Your task to perform on an android device: turn on location history Image 0: 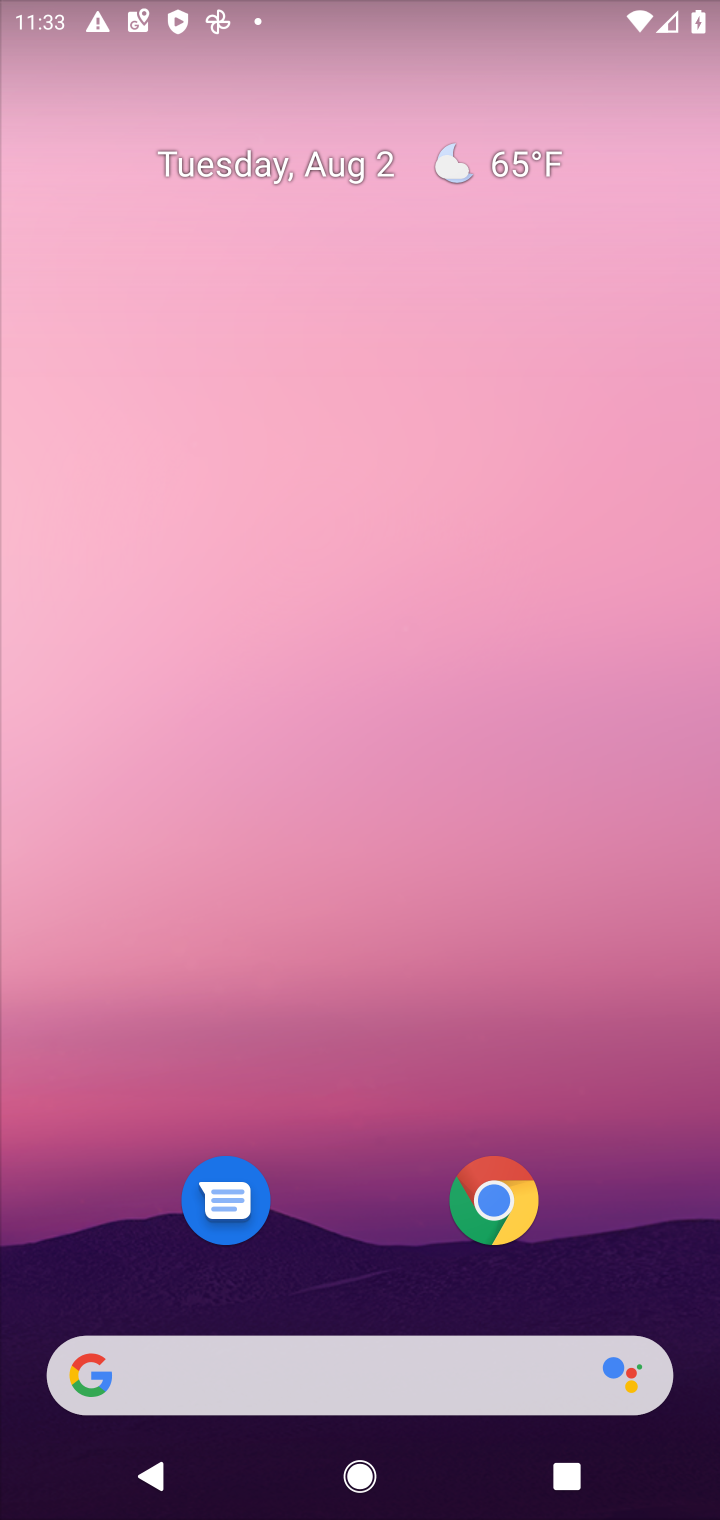
Step 0: drag from (606, 726) to (624, 233)
Your task to perform on an android device: turn on location history Image 1: 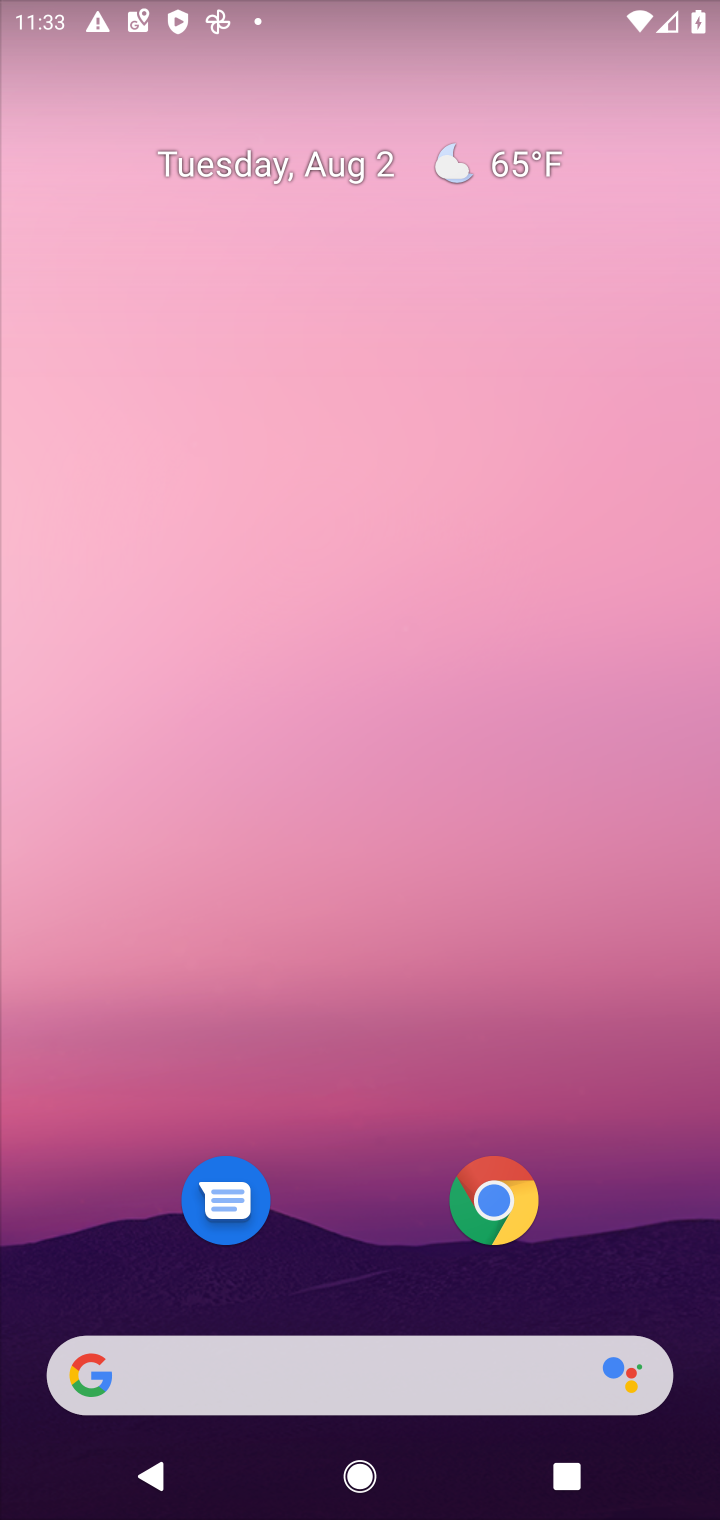
Step 1: drag from (663, 1211) to (612, 222)
Your task to perform on an android device: turn on location history Image 2: 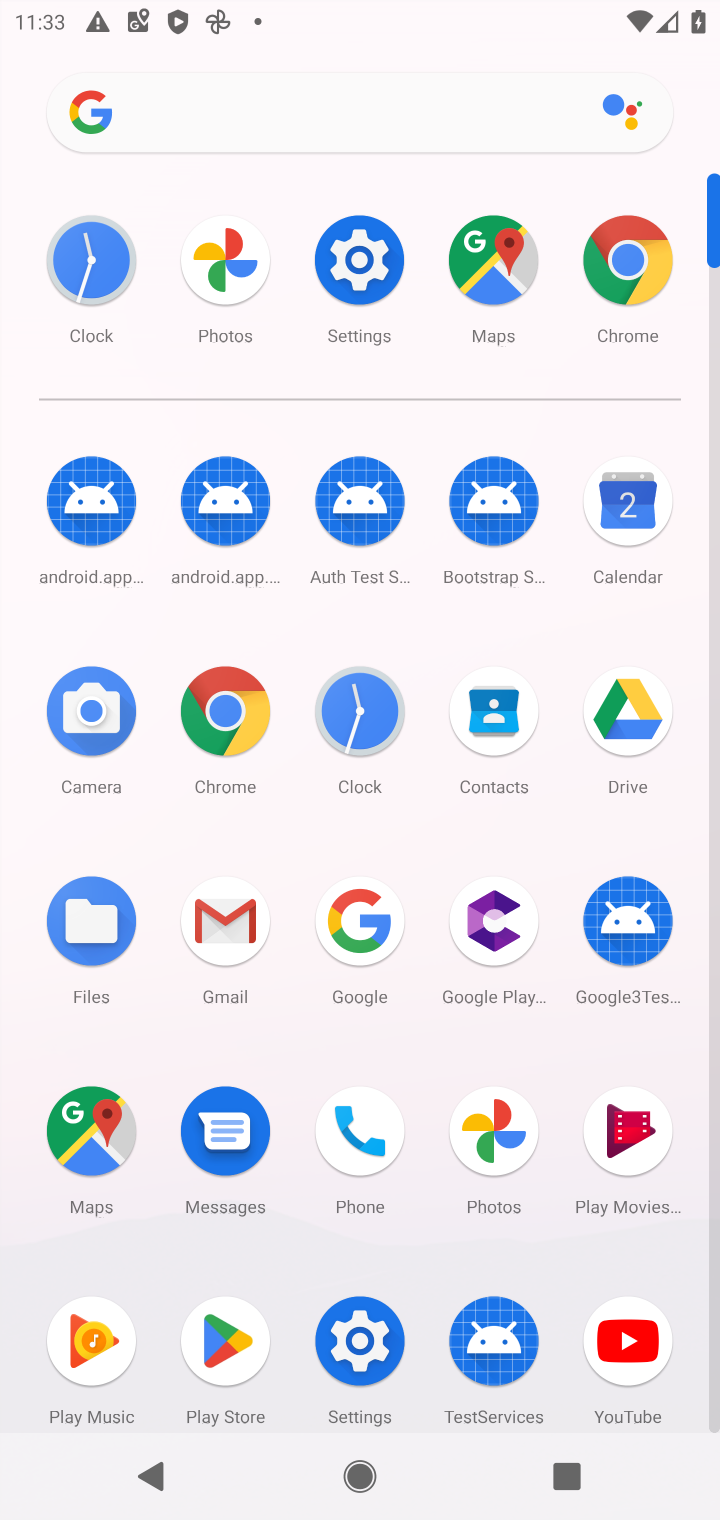
Step 2: click (96, 1136)
Your task to perform on an android device: turn on location history Image 3: 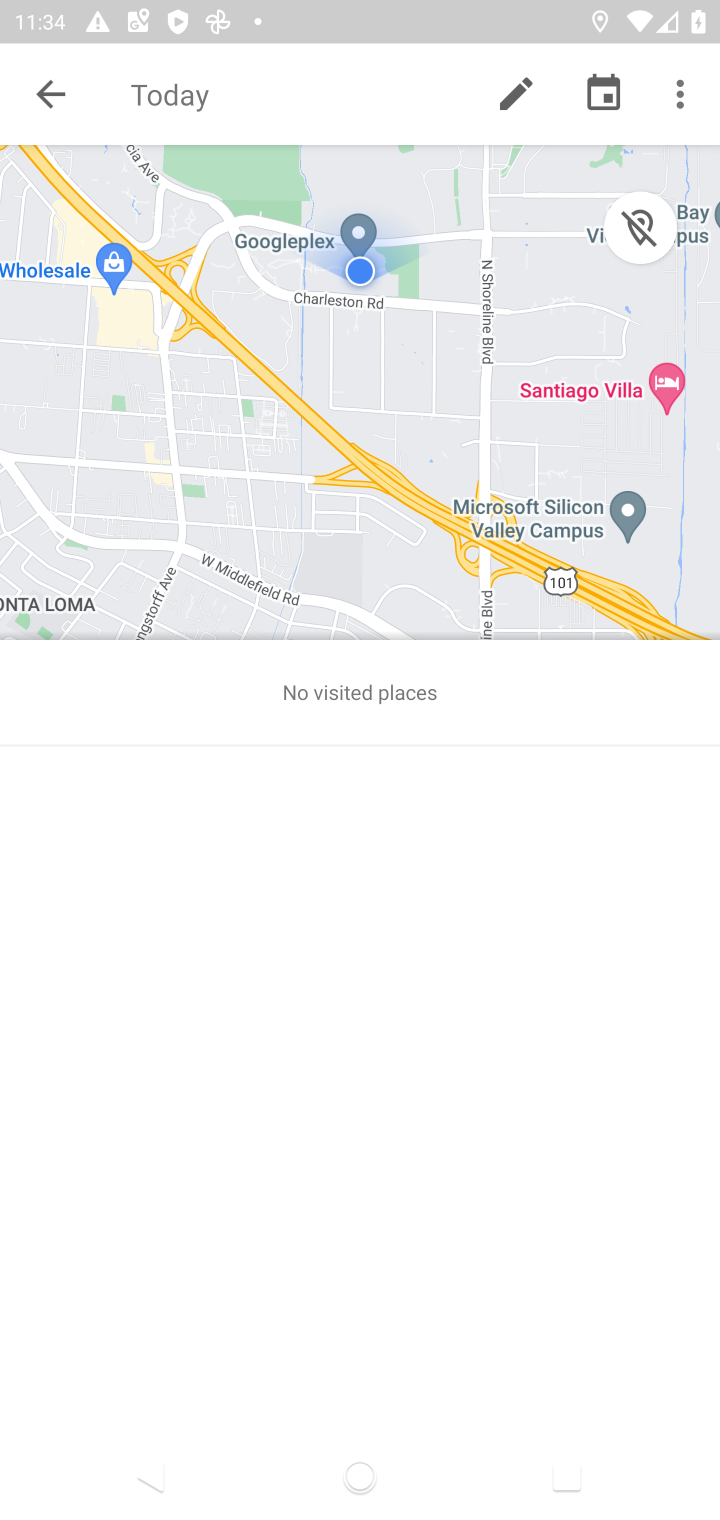
Step 3: press back button
Your task to perform on an android device: turn on location history Image 4: 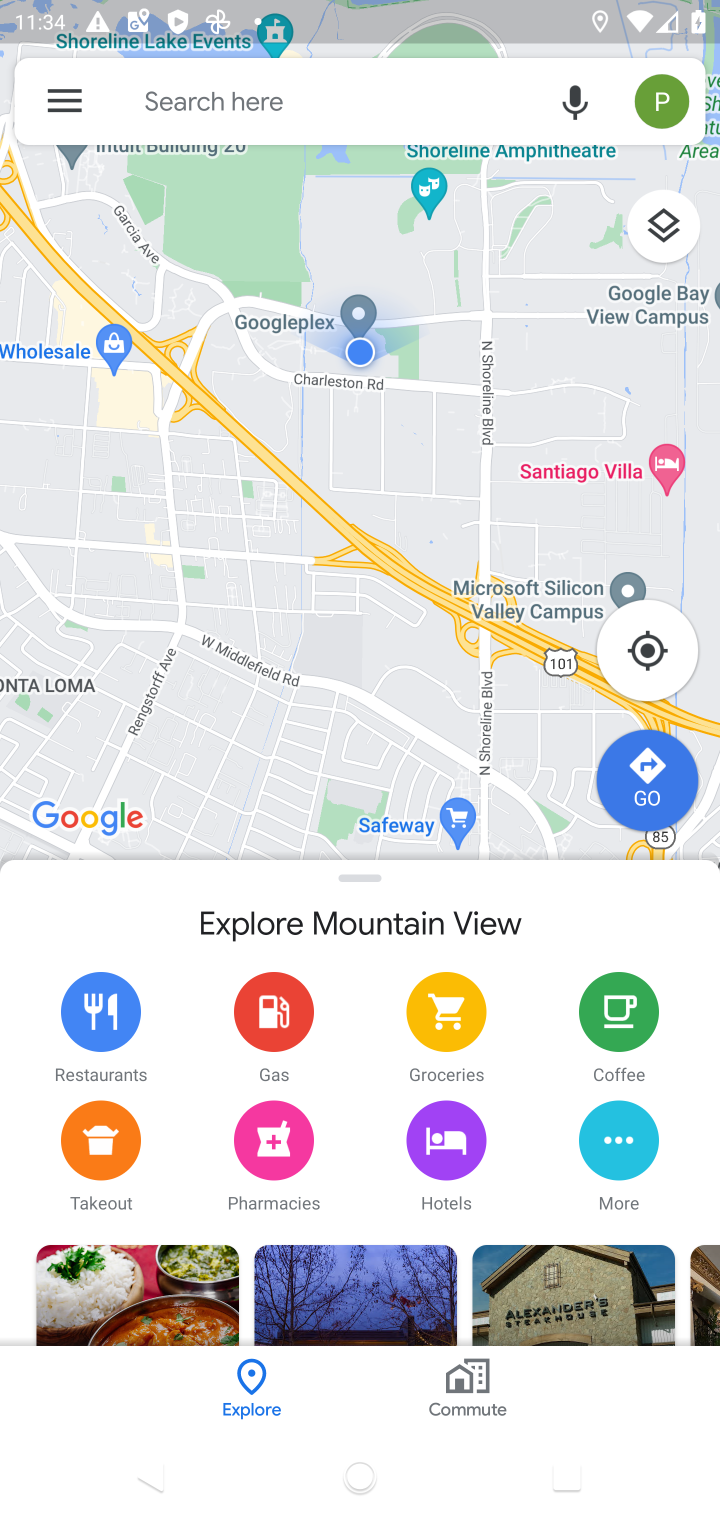
Step 4: click (53, 105)
Your task to perform on an android device: turn on location history Image 5: 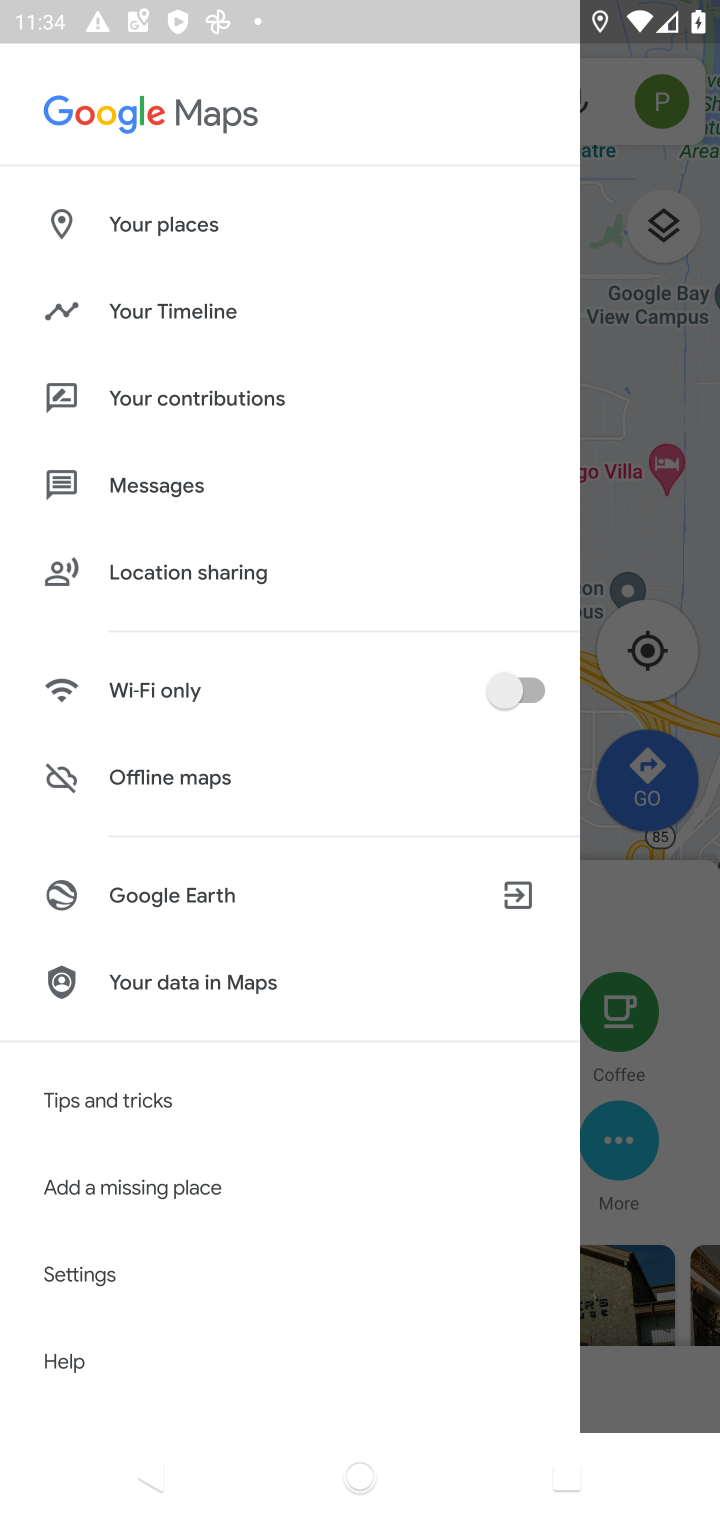
Step 5: click (87, 1278)
Your task to perform on an android device: turn on location history Image 6: 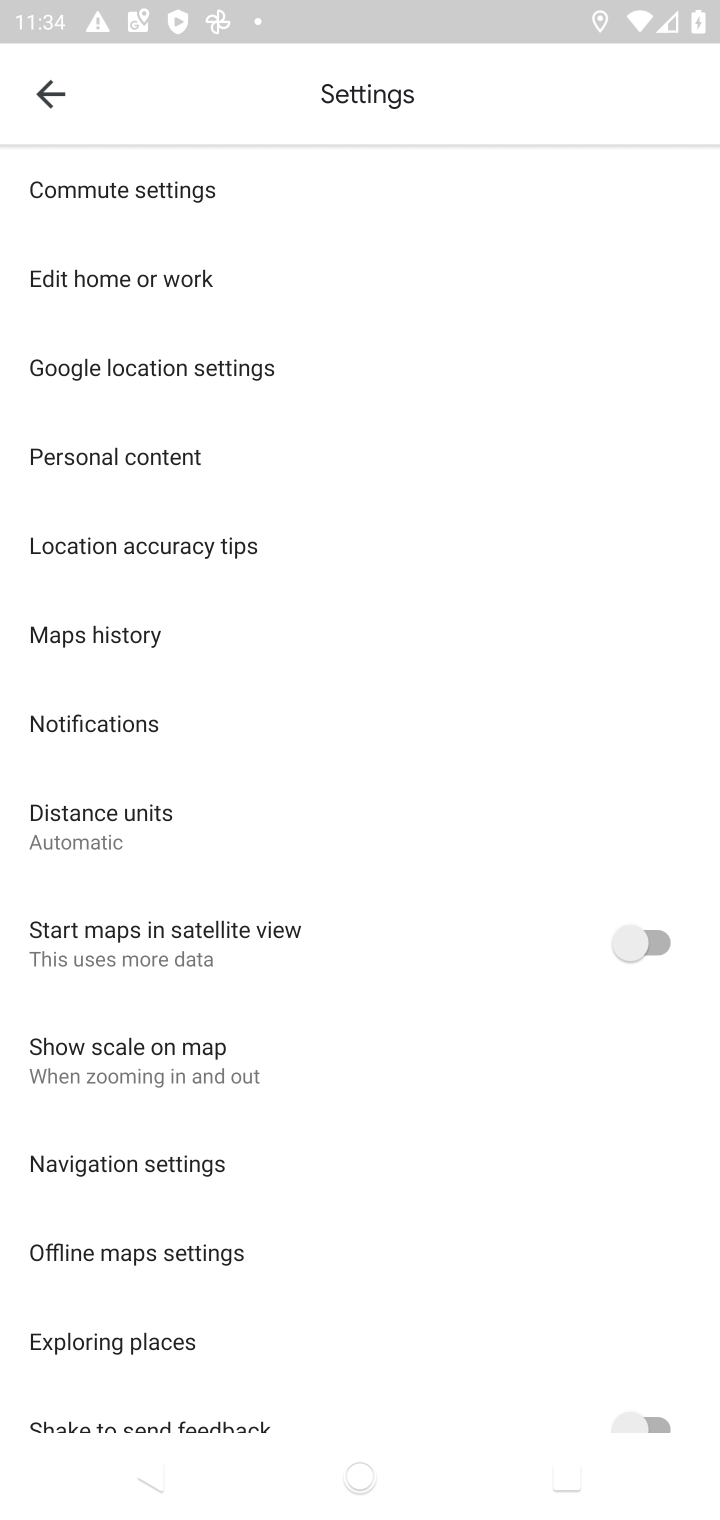
Step 6: click (146, 460)
Your task to perform on an android device: turn on location history Image 7: 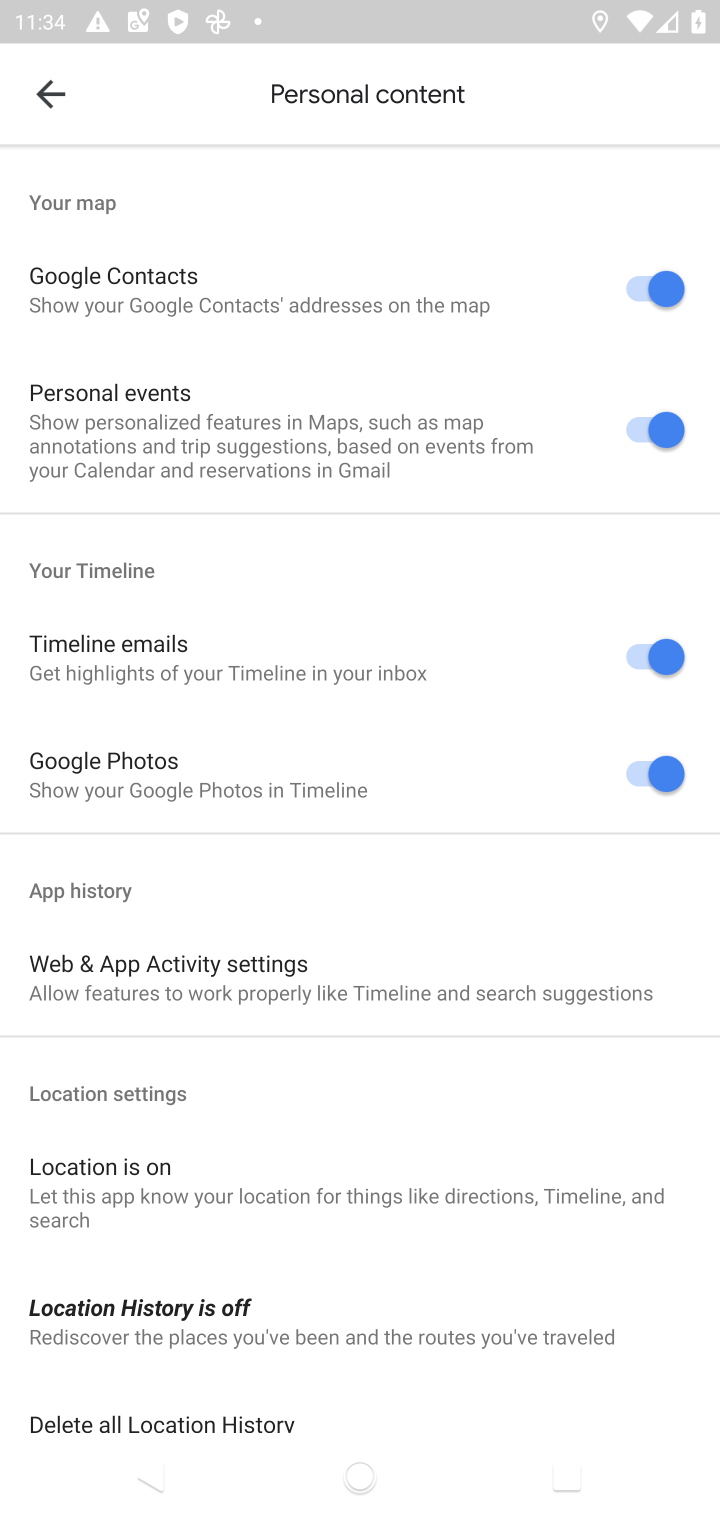
Step 7: drag from (442, 1274) to (400, 583)
Your task to perform on an android device: turn on location history Image 8: 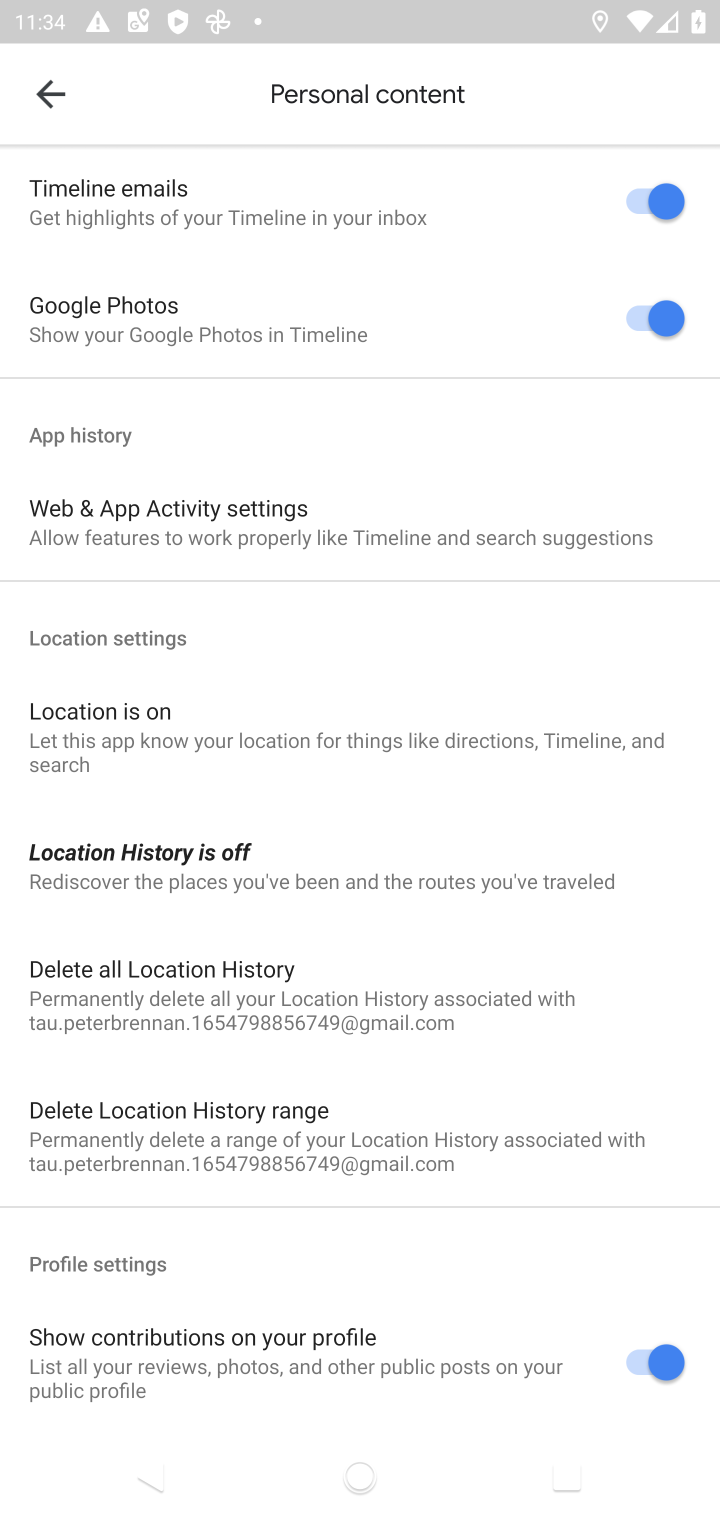
Step 8: click (153, 856)
Your task to perform on an android device: turn on location history Image 9: 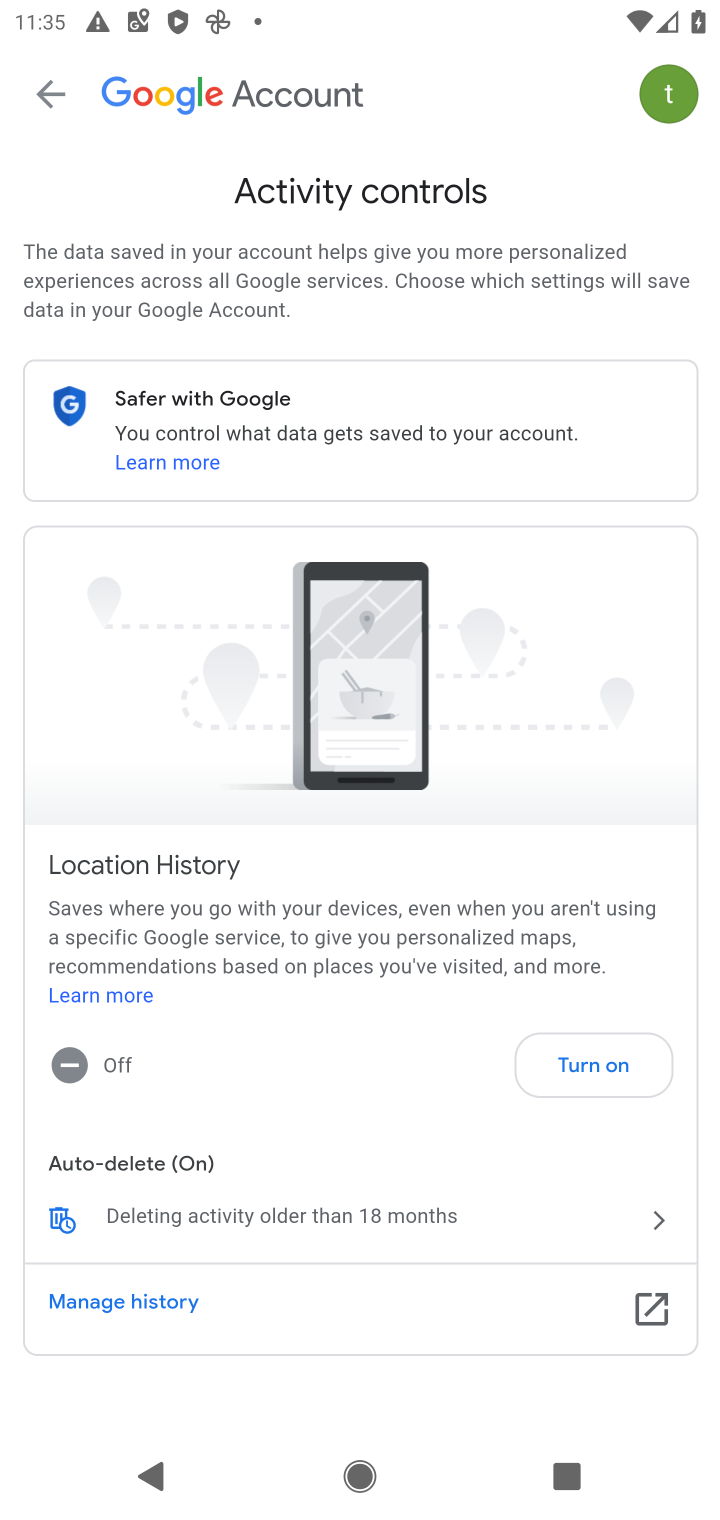
Step 9: click (594, 1055)
Your task to perform on an android device: turn on location history Image 10: 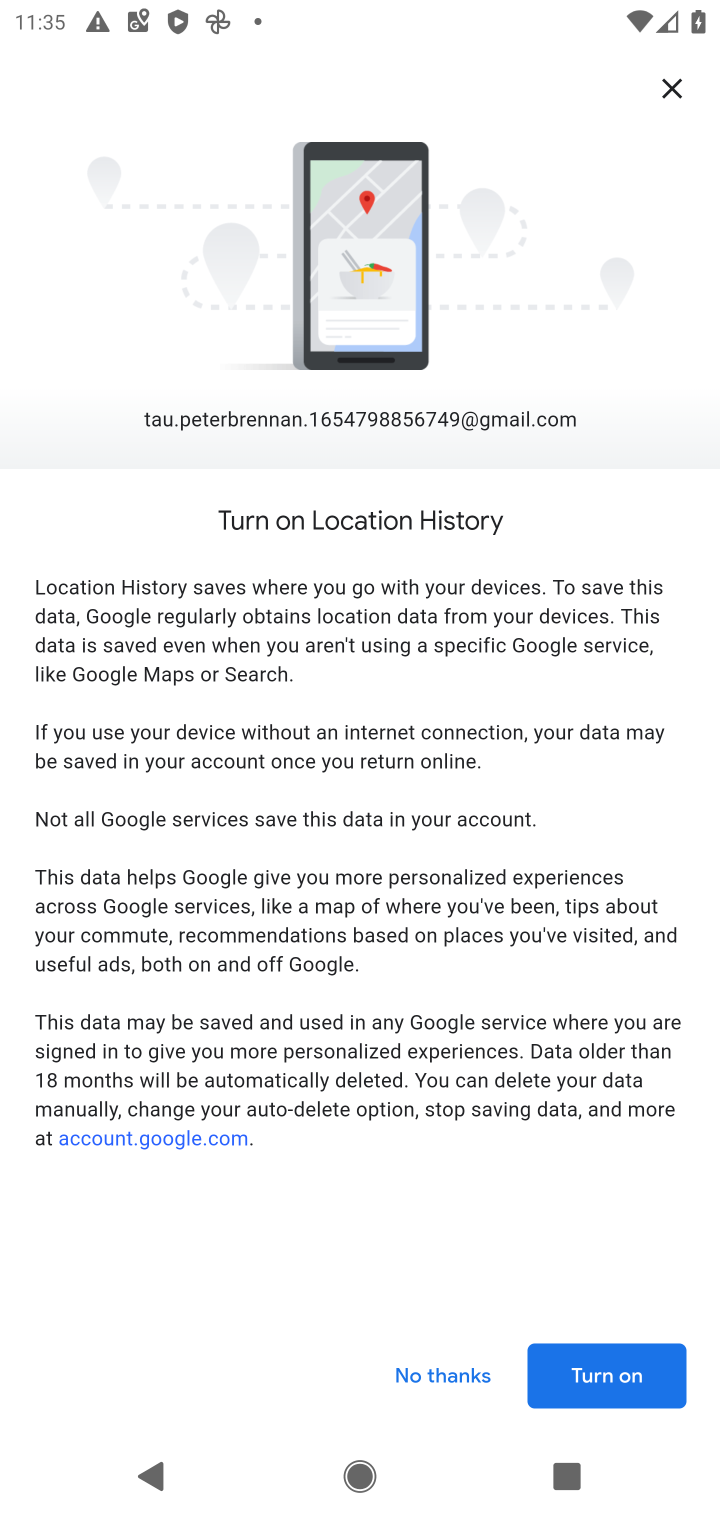
Step 10: click (611, 1376)
Your task to perform on an android device: turn on location history Image 11: 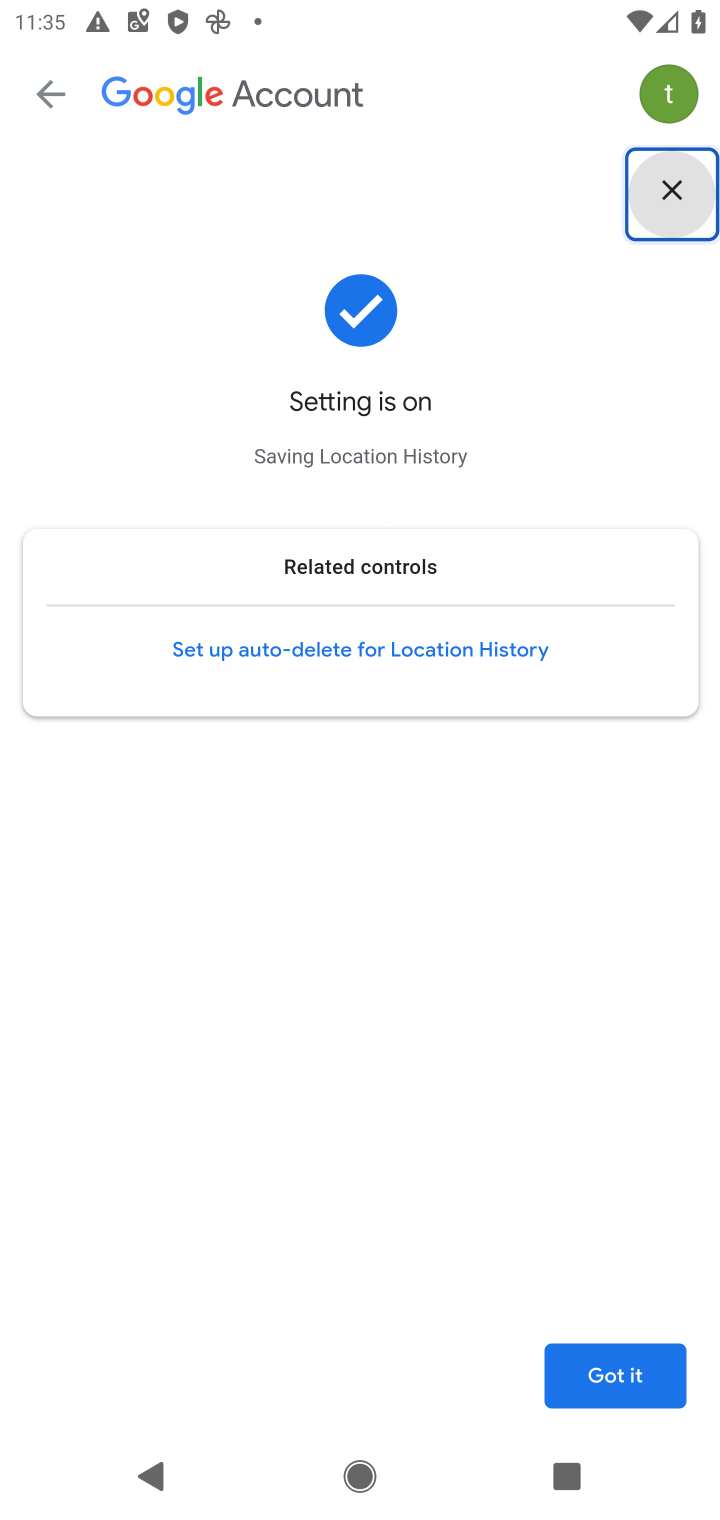
Step 11: click (624, 1362)
Your task to perform on an android device: turn on location history Image 12: 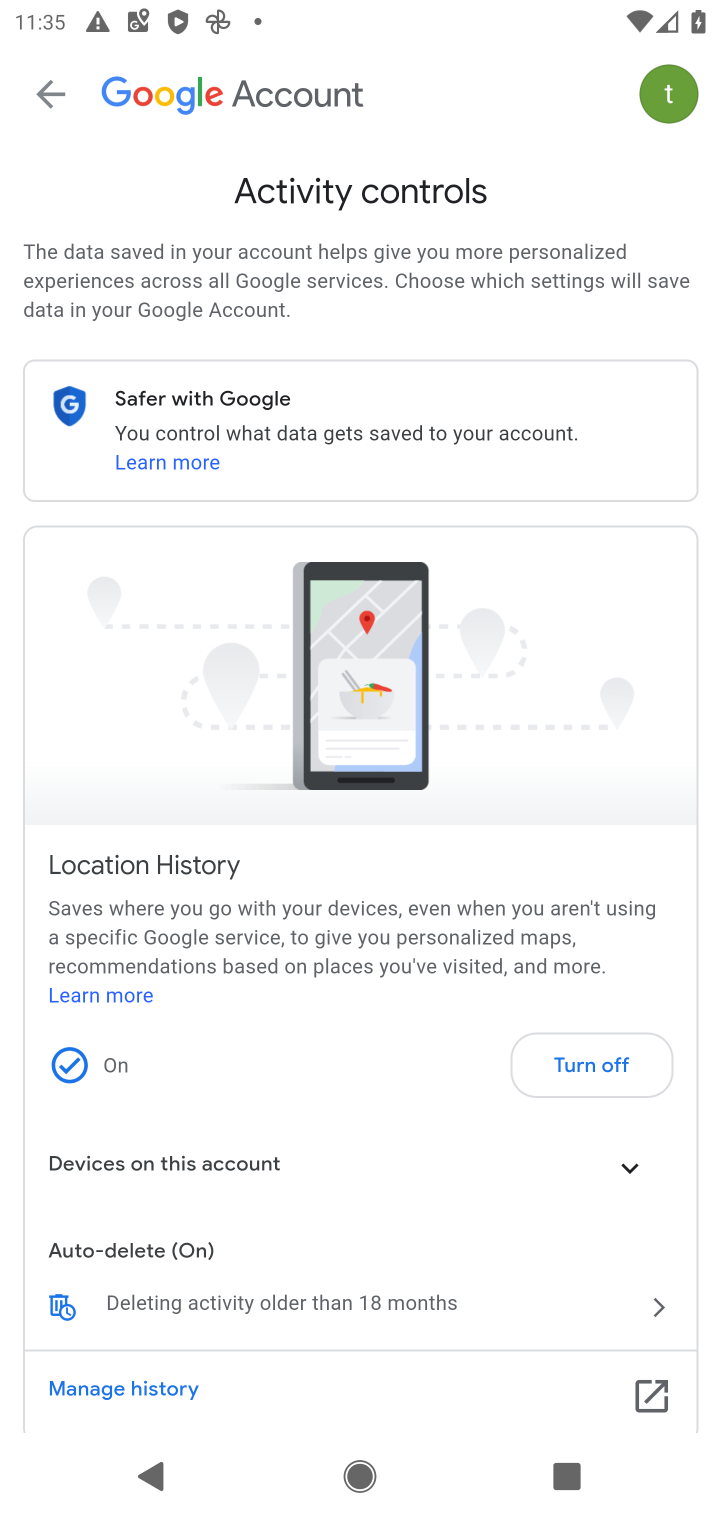
Step 12: task complete